Your task to perform on an android device: uninstall "Facebook Lite" Image 0: 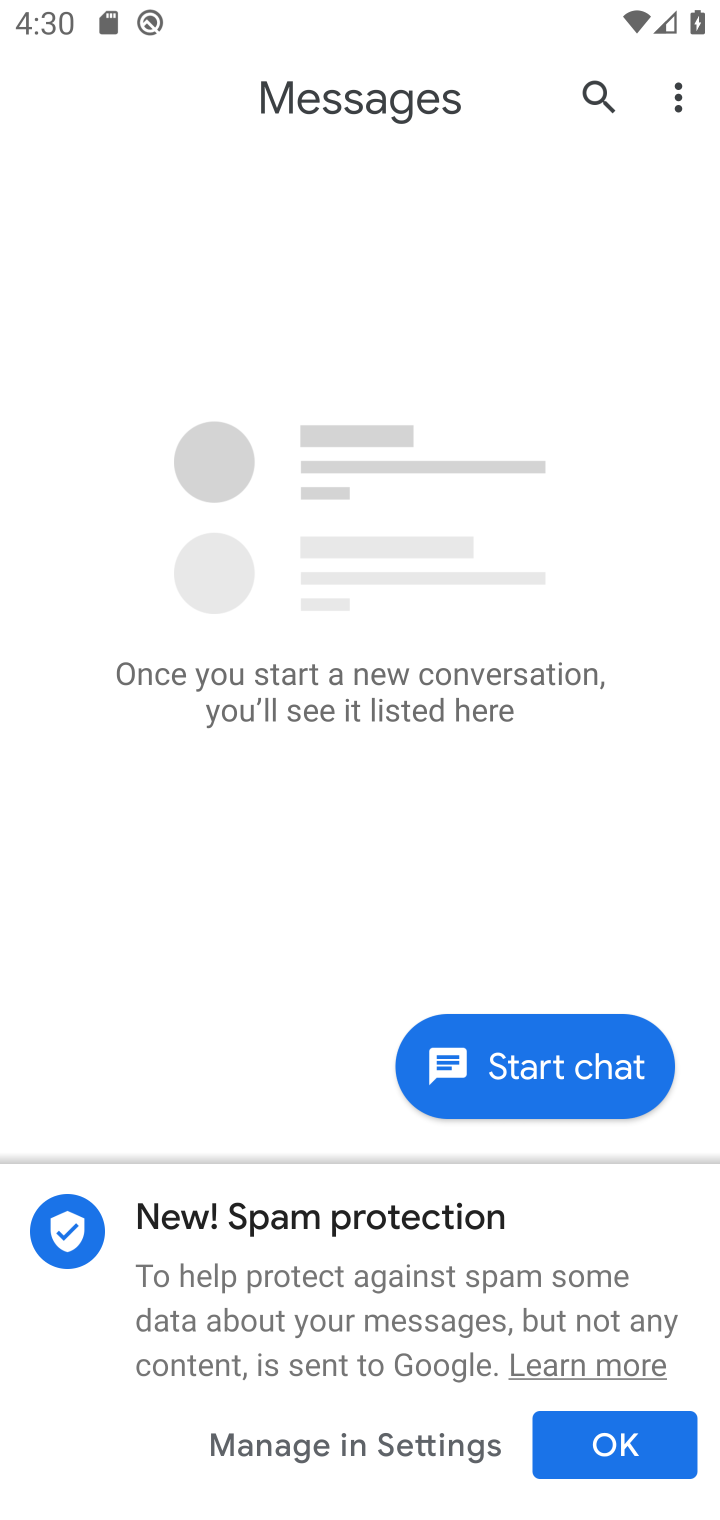
Step 0: press home button
Your task to perform on an android device: uninstall "Facebook Lite" Image 1: 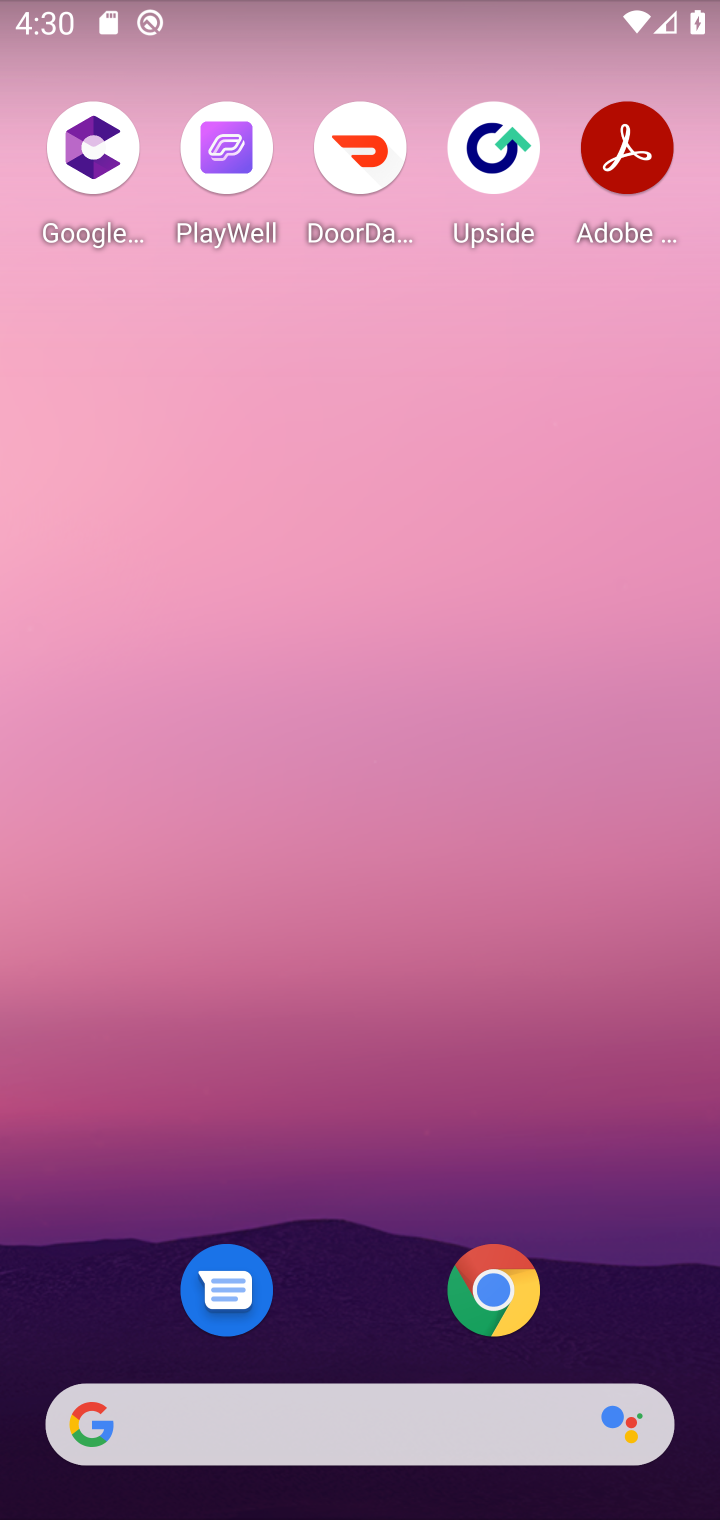
Step 1: drag from (552, 1414) to (557, 429)
Your task to perform on an android device: uninstall "Facebook Lite" Image 2: 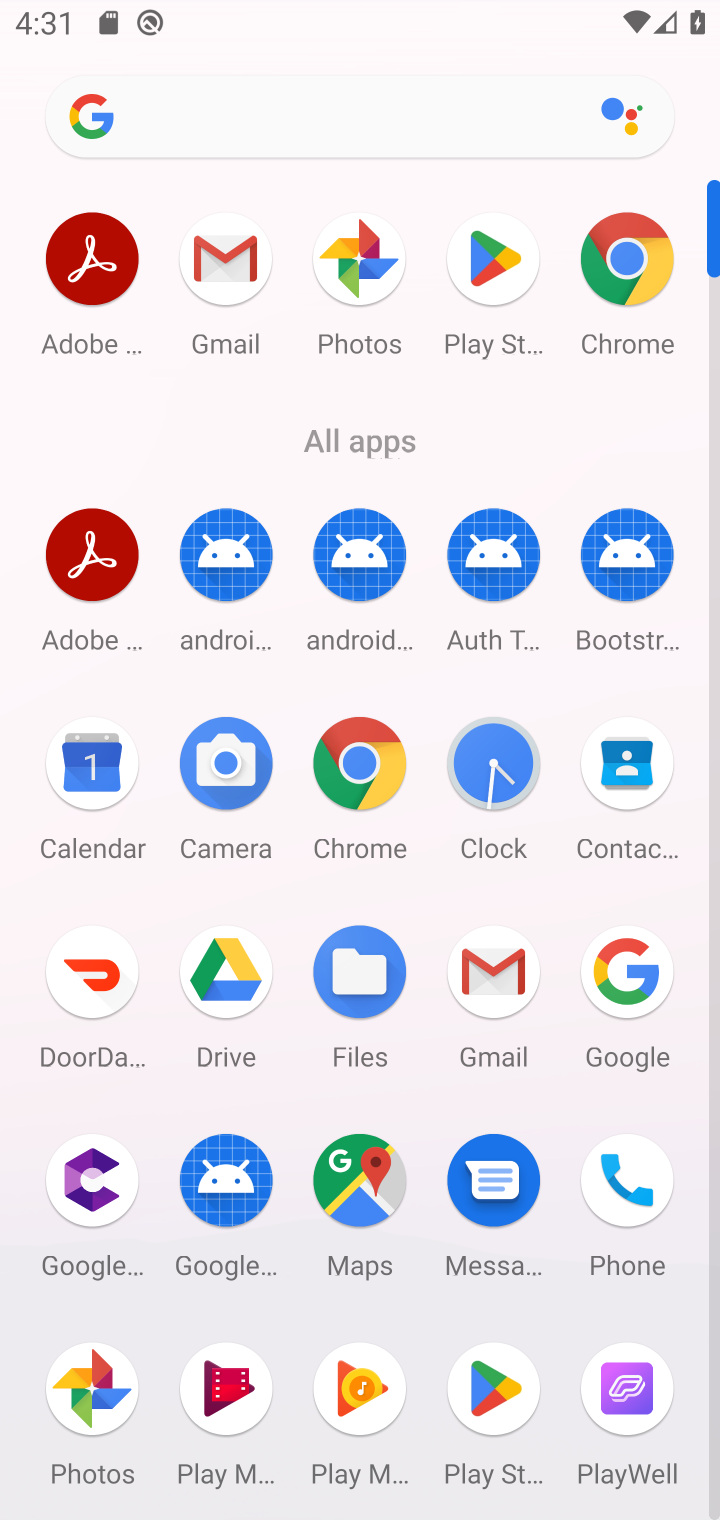
Step 2: click (509, 1390)
Your task to perform on an android device: uninstall "Facebook Lite" Image 3: 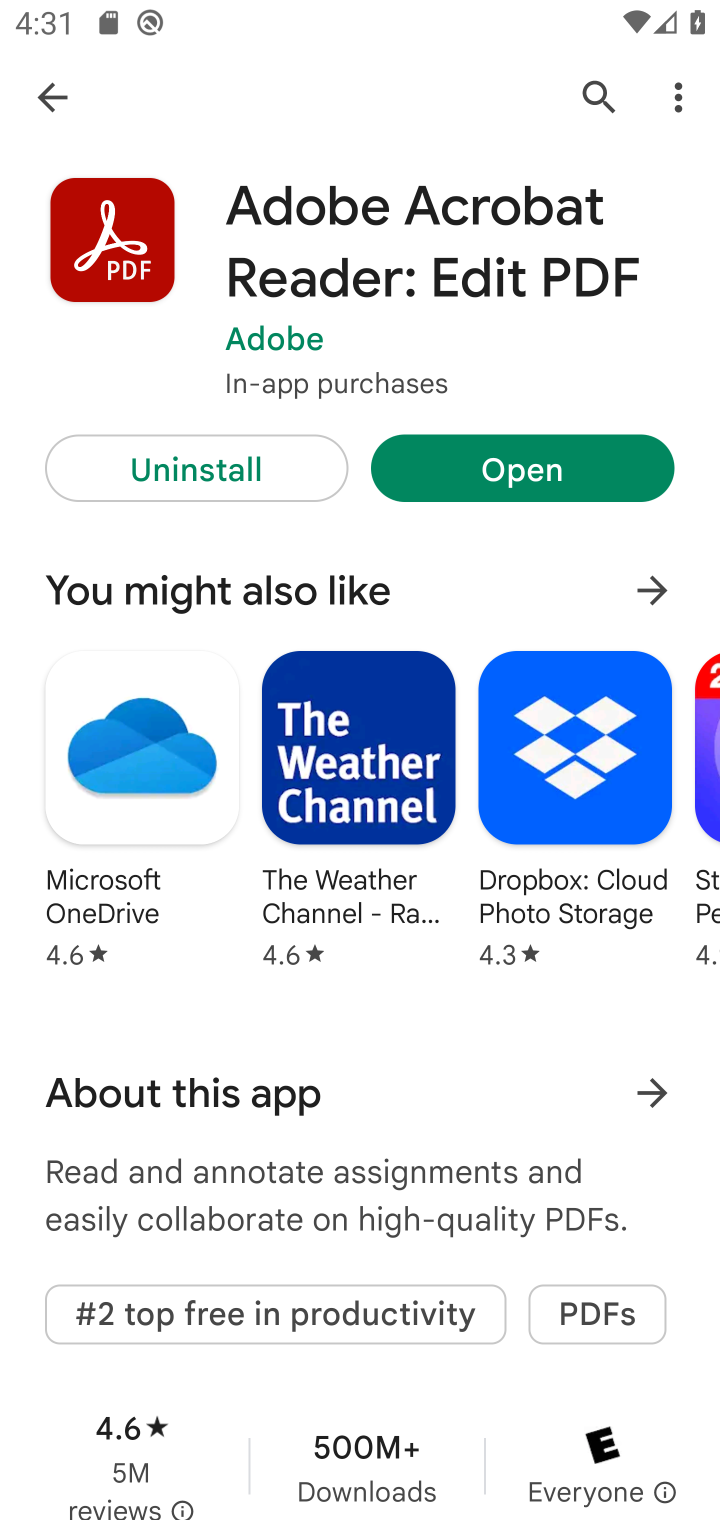
Step 3: click (593, 71)
Your task to perform on an android device: uninstall "Facebook Lite" Image 4: 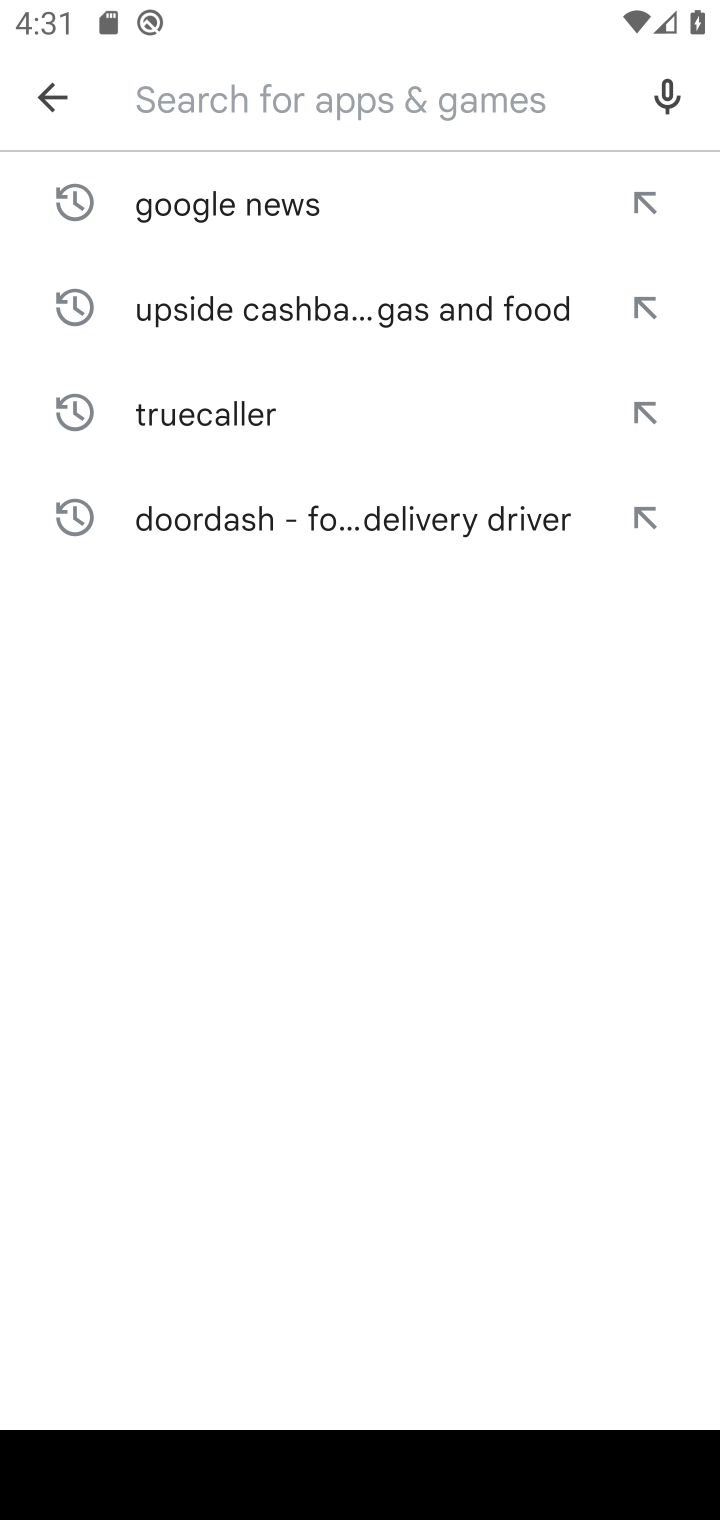
Step 4: type "facebook lite"
Your task to perform on an android device: uninstall "Facebook Lite" Image 5: 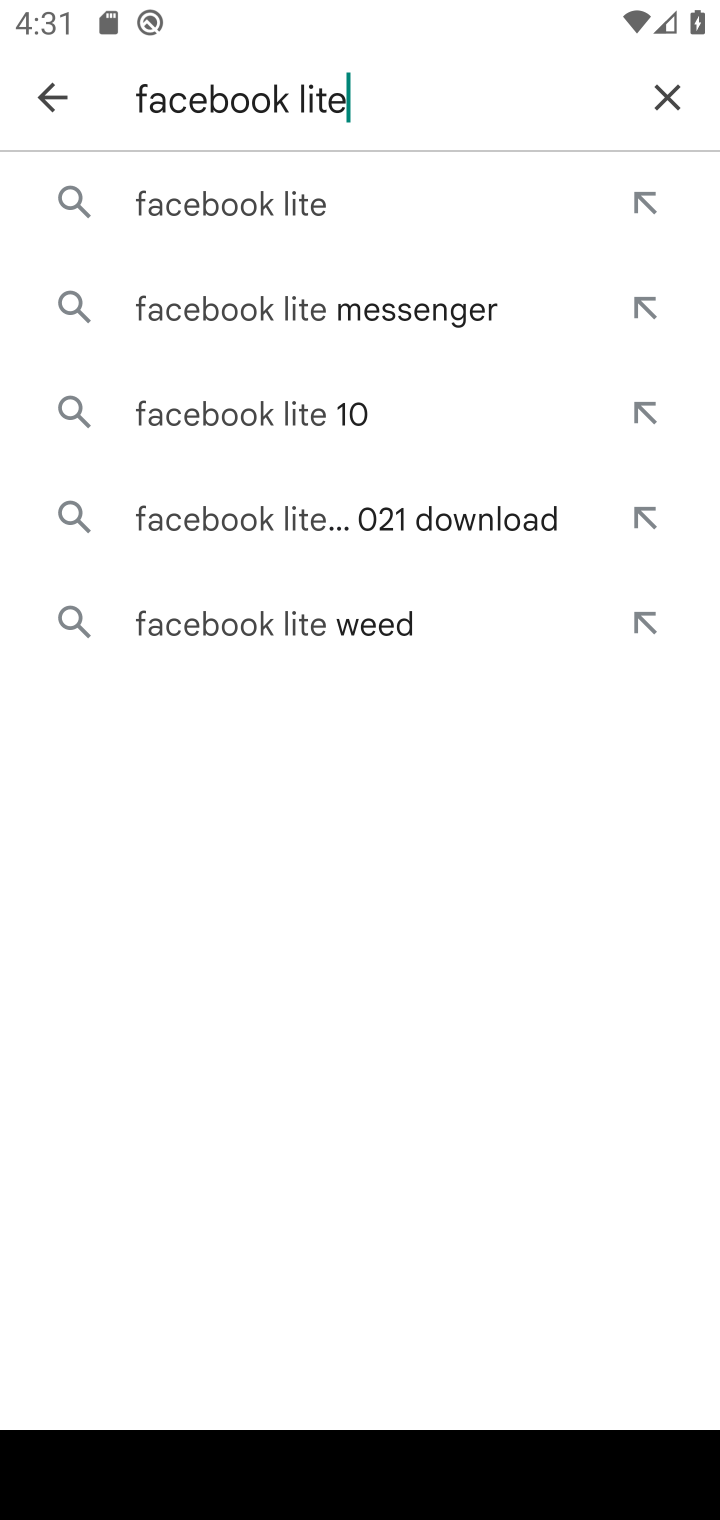
Step 5: click (362, 190)
Your task to perform on an android device: uninstall "Facebook Lite" Image 6: 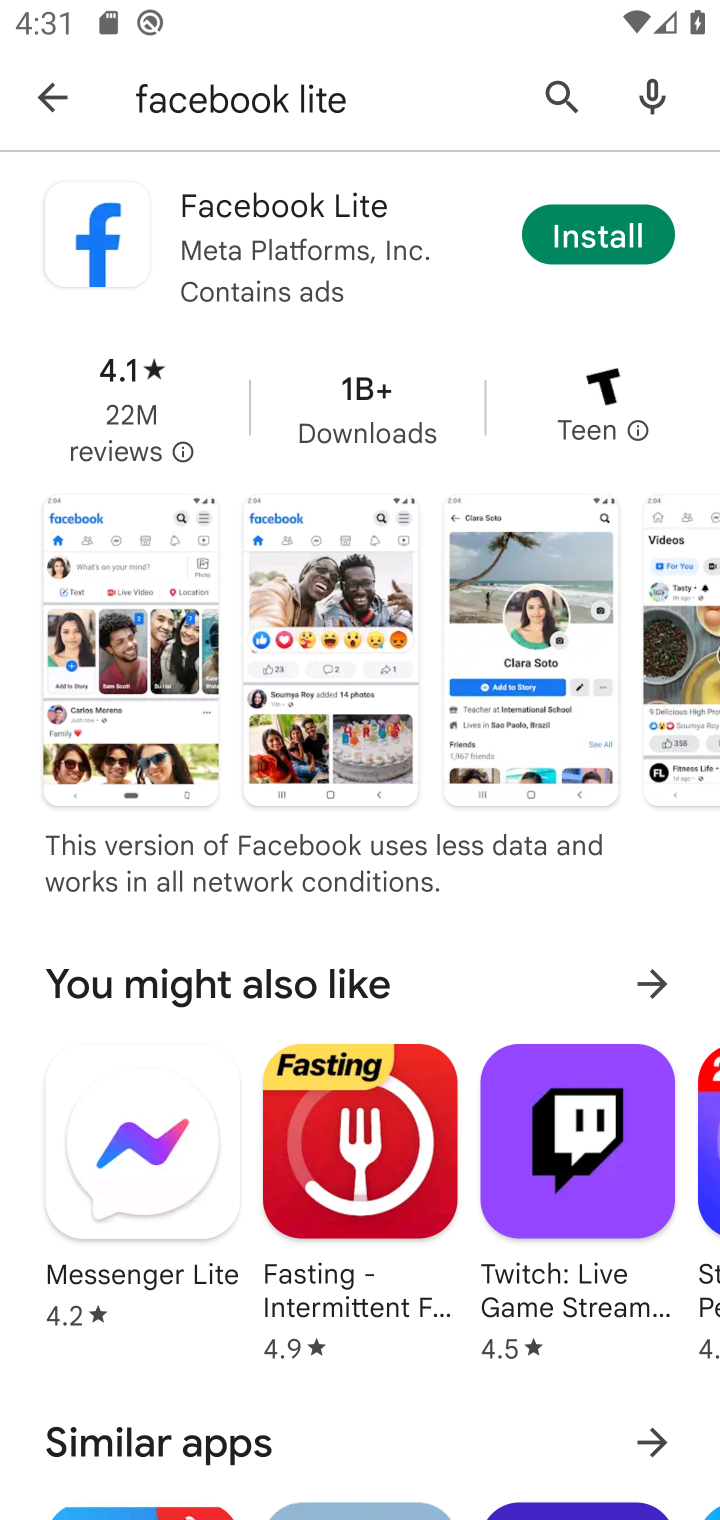
Step 6: task complete